Your task to perform on an android device: turn on showing notifications on the lock screen Image 0: 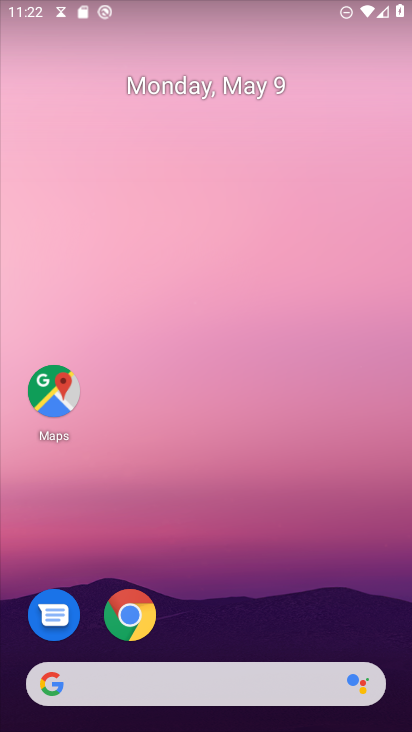
Step 0: drag from (206, 725) to (201, 242)
Your task to perform on an android device: turn on showing notifications on the lock screen Image 1: 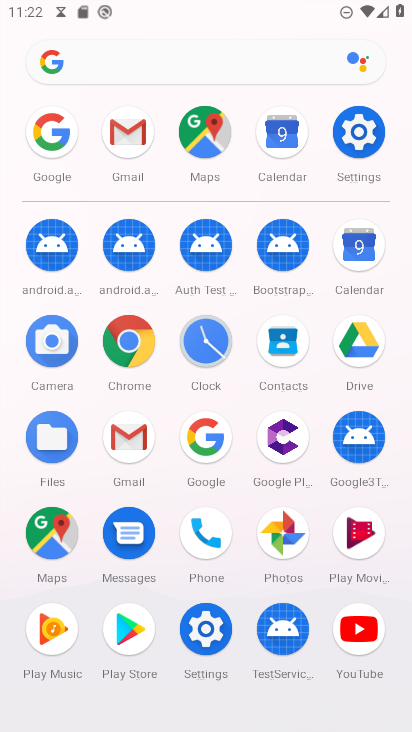
Step 1: click (360, 132)
Your task to perform on an android device: turn on showing notifications on the lock screen Image 2: 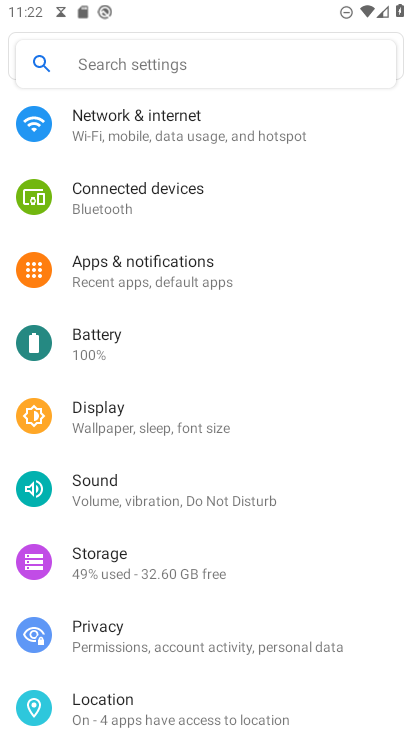
Step 2: click (141, 267)
Your task to perform on an android device: turn on showing notifications on the lock screen Image 3: 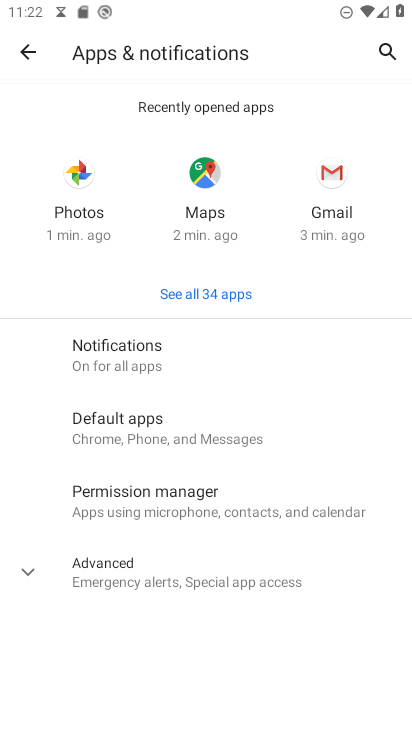
Step 3: click (121, 359)
Your task to perform on an android device: turn on showing notifications on the lock screen Image 4: 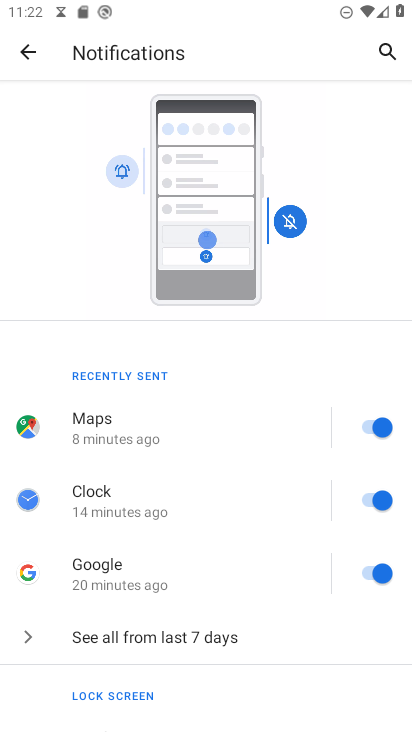
Step 4: drag from (233, 701) to (242, 325)
Your task to perform on an android device: turn on showing notifications on the lock screen Image 5: 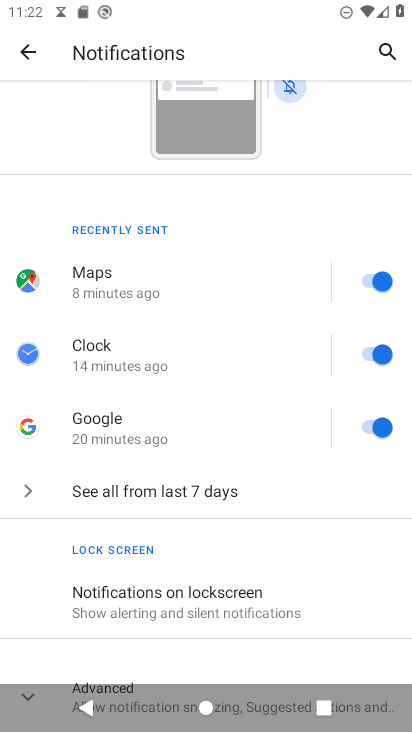
Step 5: click (202, 592)
Your task to perform on an android device: turn on showing notifications on the lock screen Image 6: 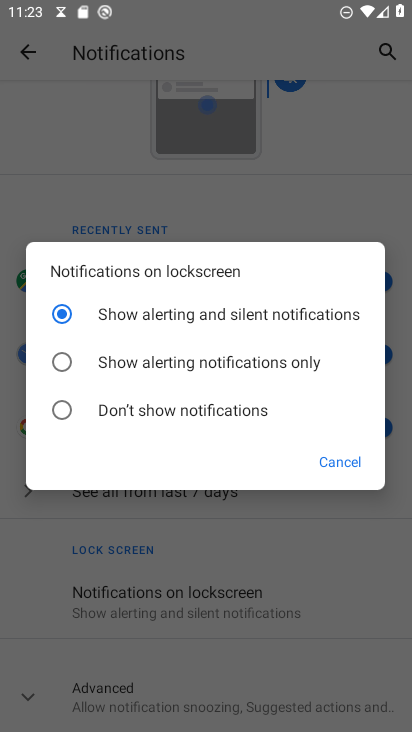
Step 6: click (334, 460)
Your task to perform on an android device: turn on showing notifications on the lock screen Image 7: 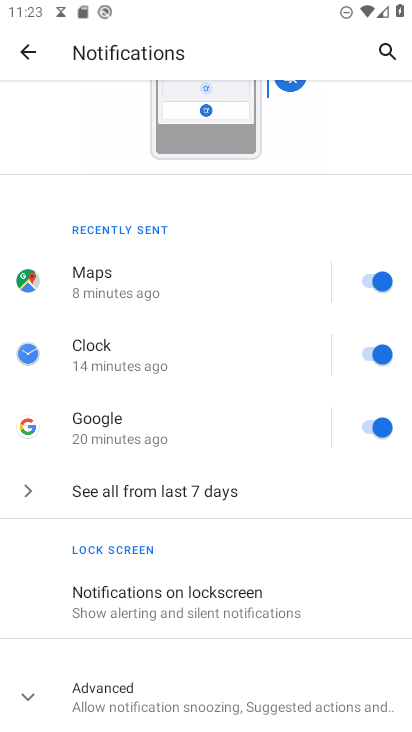
Step 7: task complete